Your task to perform on an android device: Turn off the flashlight Image 0: 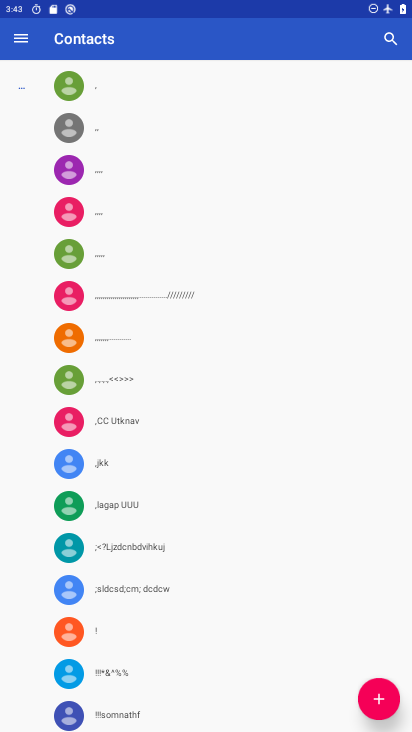
Step 0: press home button
Your task to perform on an android device: Turn off the flashlight Image 1: 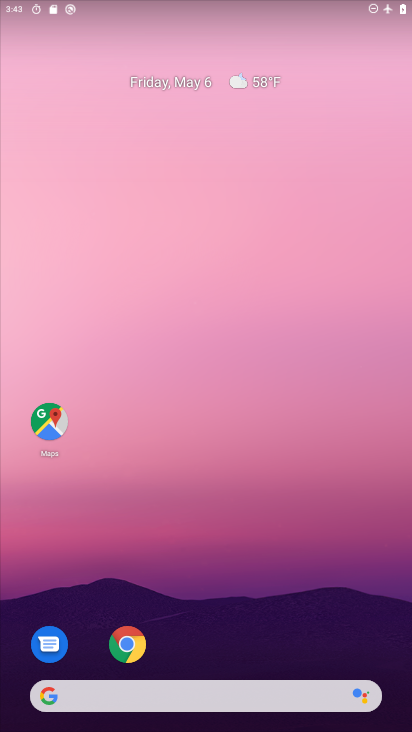
Step 1: drag from (182, 706) to (183, 256)
Your task to perform on an android device: Turn off the flashlight Image 2: 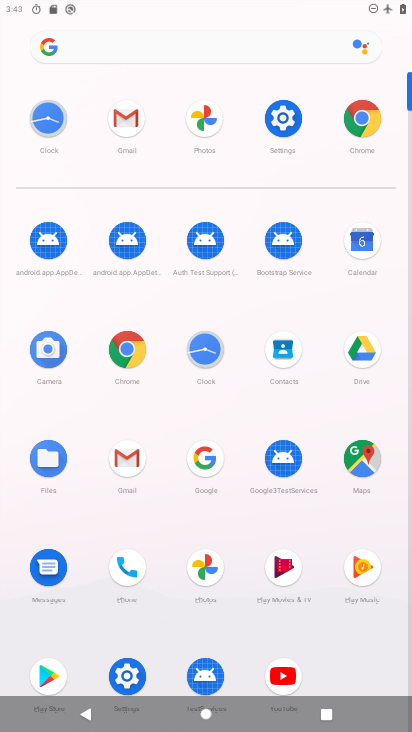
Step 2: click (289, 112)
Your task to perform on an android device: Turn off the flashlight Image 3: 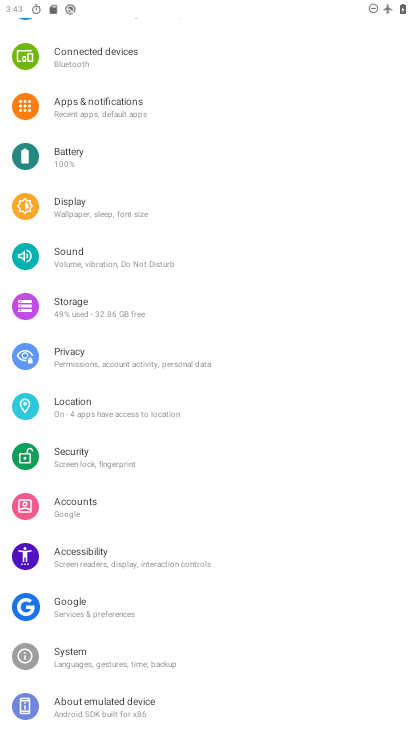
Step 3: task complete